Your task to perform on an android device: Open calendar and show me the third week of next month Image 0: 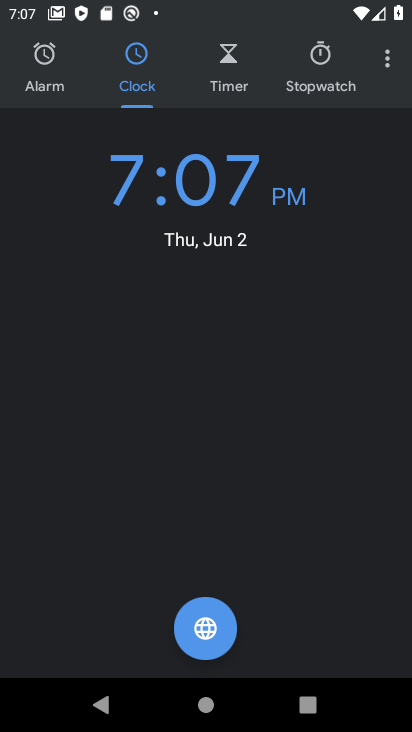
Step 0: press home button
Your task to perform on an android device: Open calendar and show me the third week of next month Image 1: 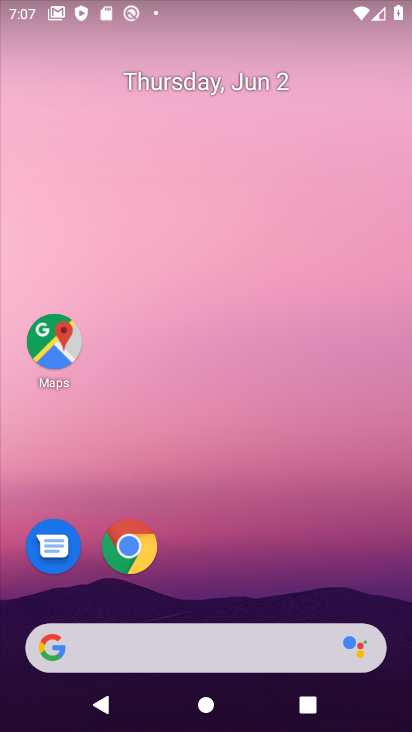
Step 1: drag from (232, 679) to (327, 312)
Your task to perform on an android device: Open calendar and show me the third week of next month Image 2: 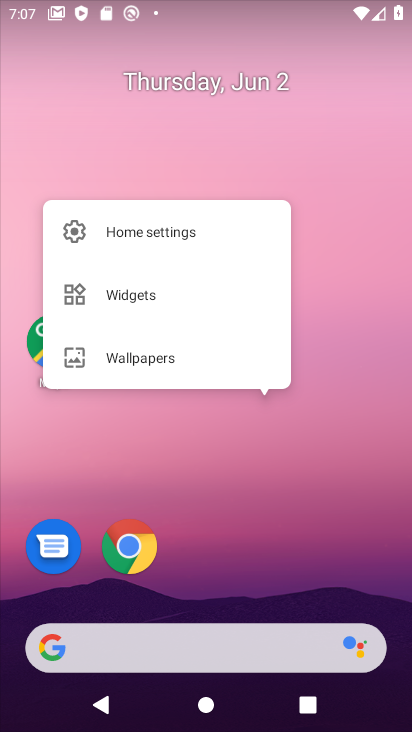
Step 2: click (349, 358)
Your task to perform on an android device: Open calendar and show me the third week of next month Image 3: 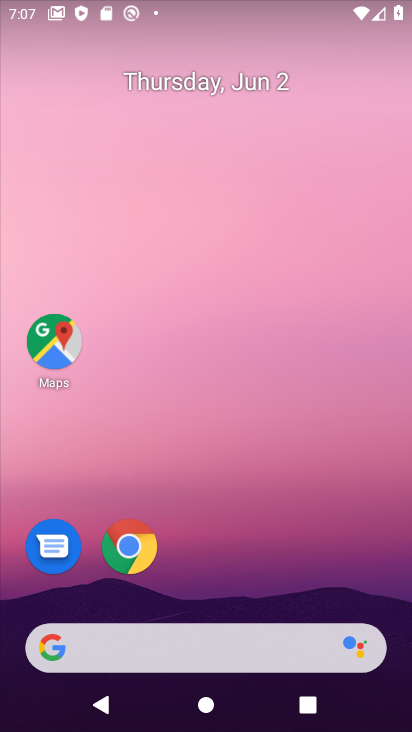
Step 3: drag from (264, 682) to (301, 235)
Your task to perform on an android device: Open calendar and show me the third week of next month Image 4: 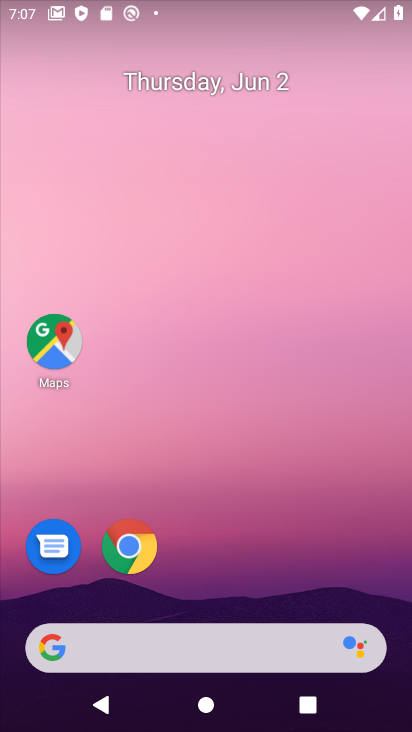
Step 4: drag from (223, 675) to (262, 147)
Your task to perform on an android device: Open calendar and show me the third week of next month Image 5: 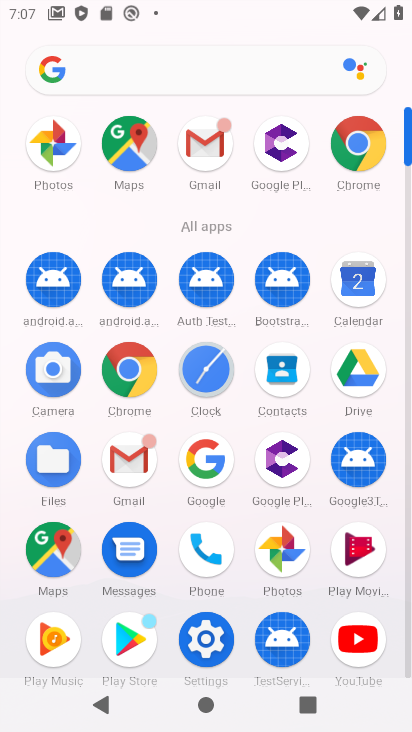
Step 5: drag from (360, 284) to (218, 355)
Your task to perform on an android device: Open calendar and show me the third week of next month Image 6: 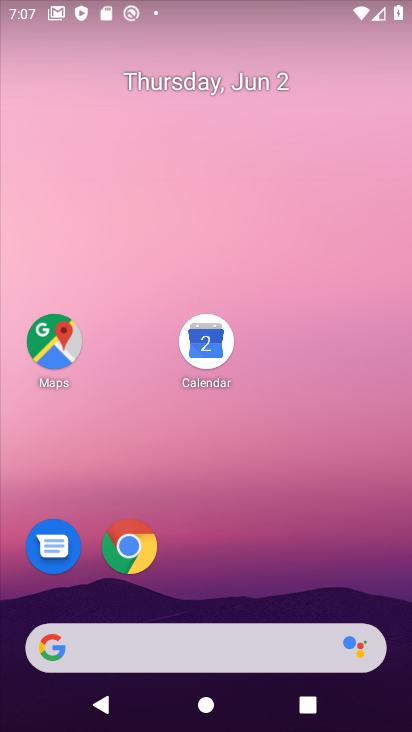
Step 6: click (206, 360)
Your task to perform on an android device: Open calendar and show me the third week of next month Image 7: 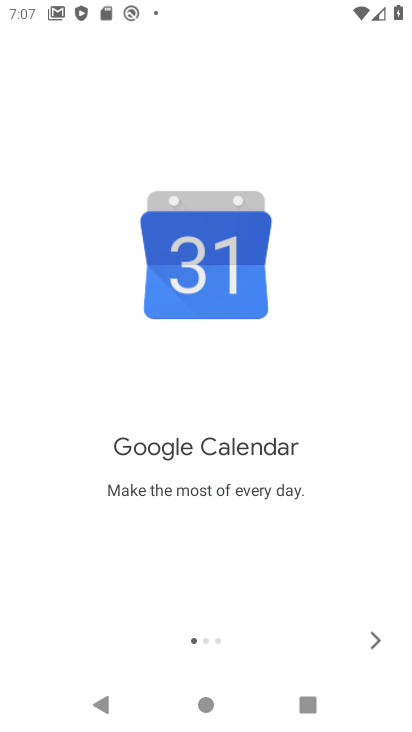
Step 7: click (368, 631)
Your task to perform on an android device: Open calendar and show me the third week of next month Image 8: 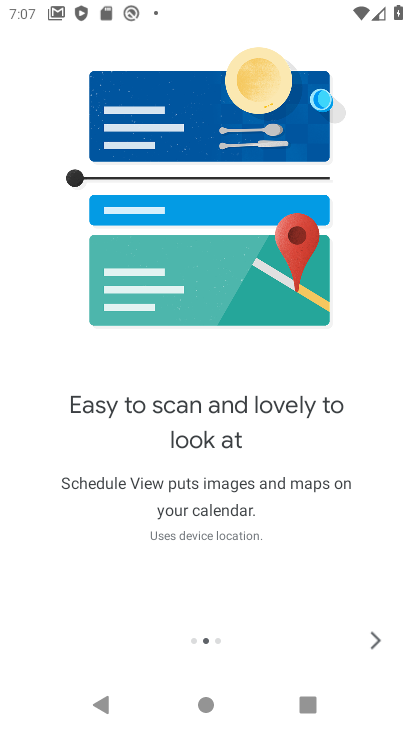
Step 8: click (374, 639)
Your task to perform on an android device: Open calendar and show me the third week of next month Image 9: 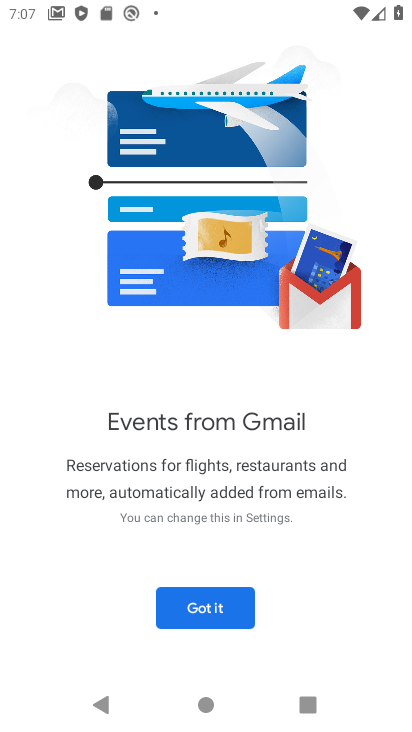
Step 9: click (190, 598)
Your task to perform on an android device: Open calendar and show me the third week of next month Image 10: 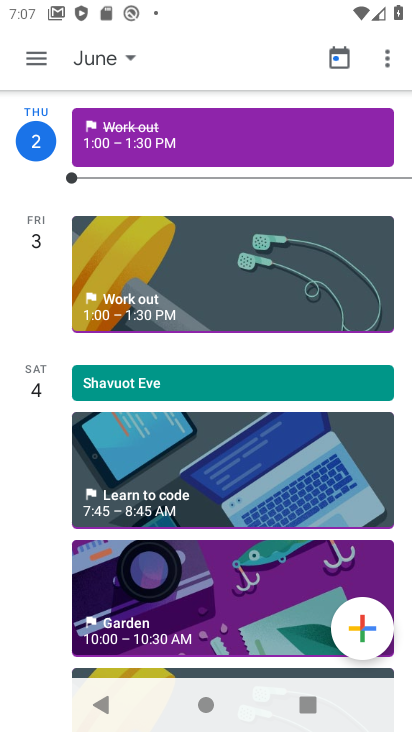
Step 10: click (32, 70)
Your task to perform on an android device: Open calendar and show me the third week of next month Image 11: 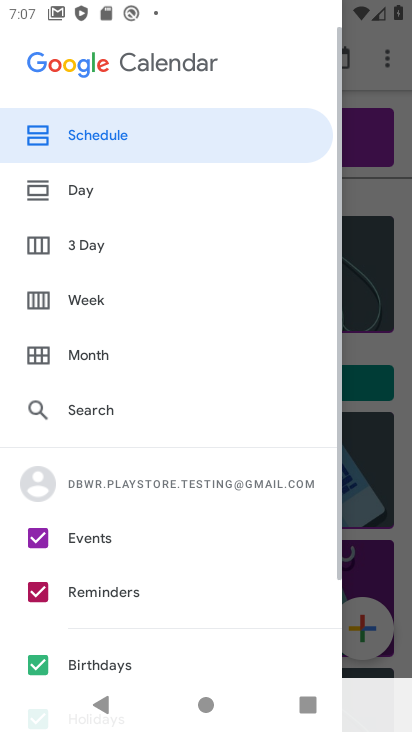
Step 11: click (100, 354)
Your task to perform on an android device: Open calendar and show me the third week of next month Image 12: 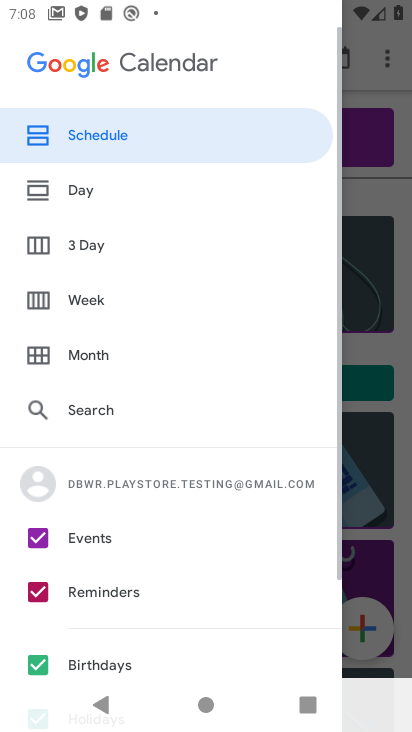
Step 12: click (99, 355)
Your task to perform on an android device: Open calendar and show me the third week of next month Image 13: 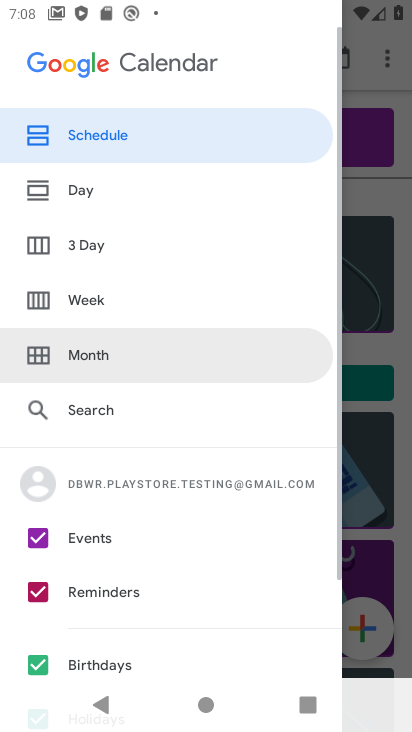
Step 13: click (91, 361)
Your task to perform on an android device: Open calendar and show me the third week of next month Image 14: 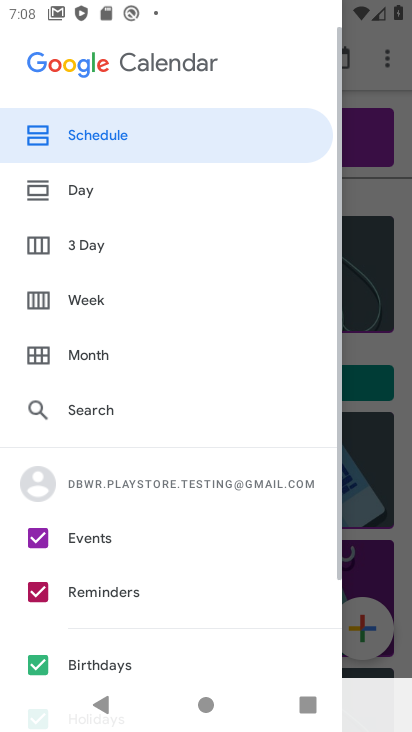
Step 14: click (91, 358)
Your task to perform on an android device: Open calendar and show me the third week of next month Image 15: 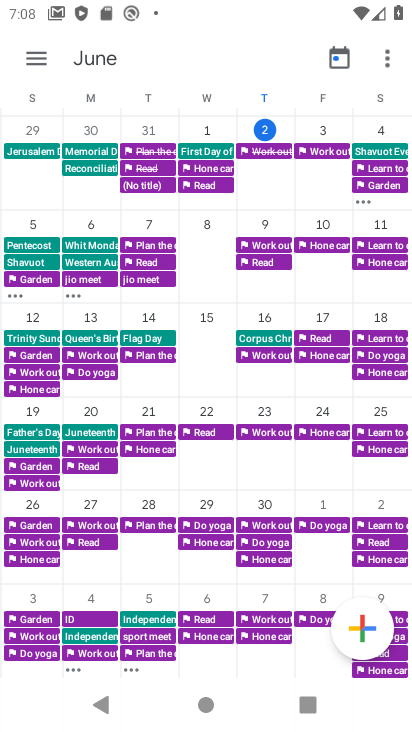
Step 15: drag from (384, 419) to (27, 406)
Your task to perform on an android device: Open calendar and show me the third week of next month Image 16: 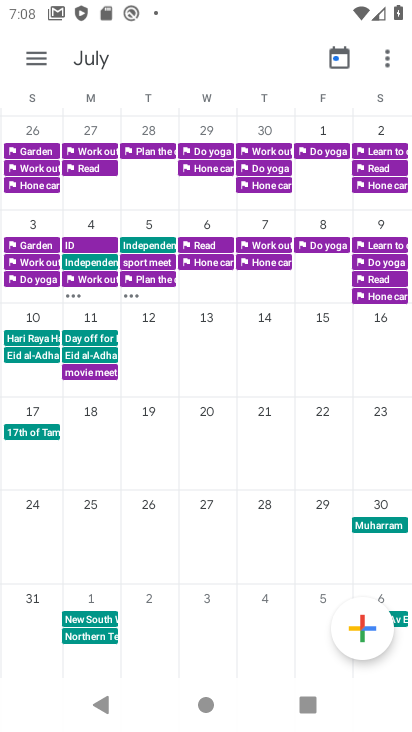
Step 16: click (91, 504)
Your task to perform on an android device: Open calendar and show me the third week of next month Image 17: 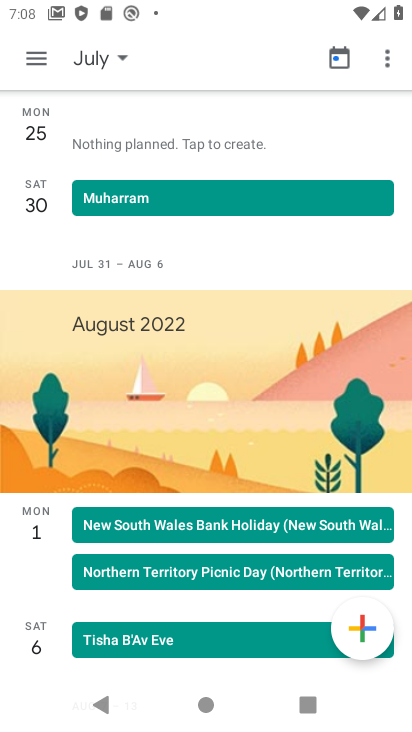
Step 17: task complete